Your task to perform on an android device: turn smart compose on in the gmail app Image 0: 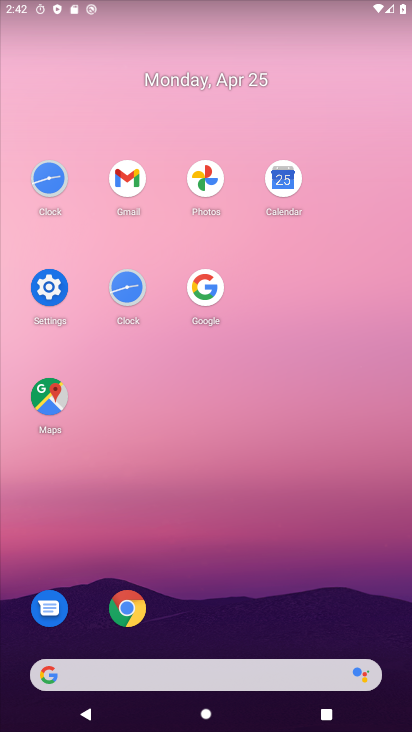
Step 0: click (131, 179)
Your task to perform on an android device: turn smart compose on in the gmail app Image 1: 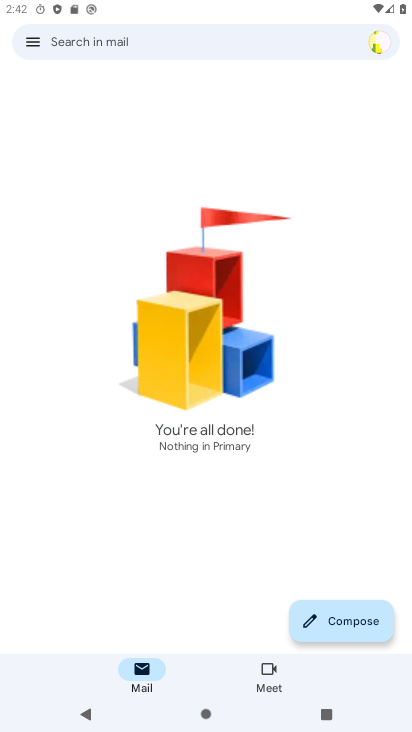
Step 1: click (26, 44)
Your task to perform on an android device: turn smart compose on in the gmail app Image 2: 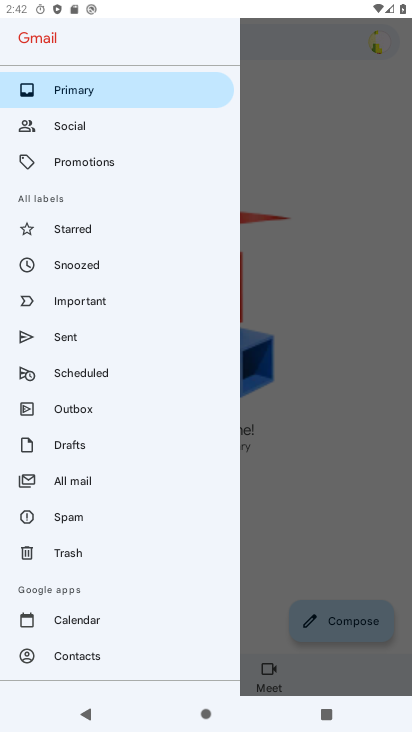
Step 2: drag from (120, 568) to (122, 158)
Your task to perform on an android device: turn smart compose on in the gmail app Image 3: 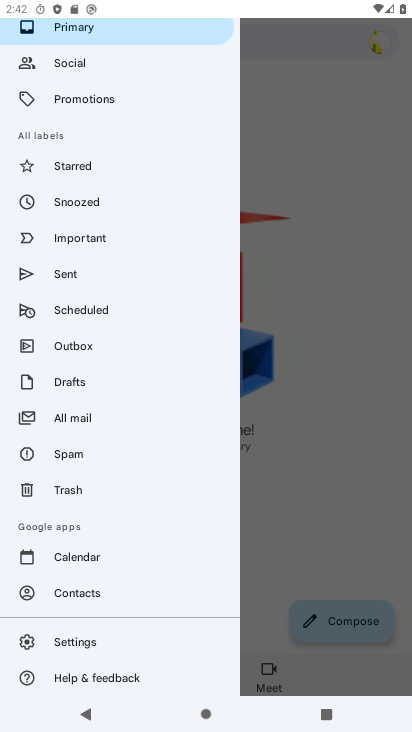
Step 3: click (78, 632)
Your task to perform on an android device: turn smart compose on in the gmail app Image 4: 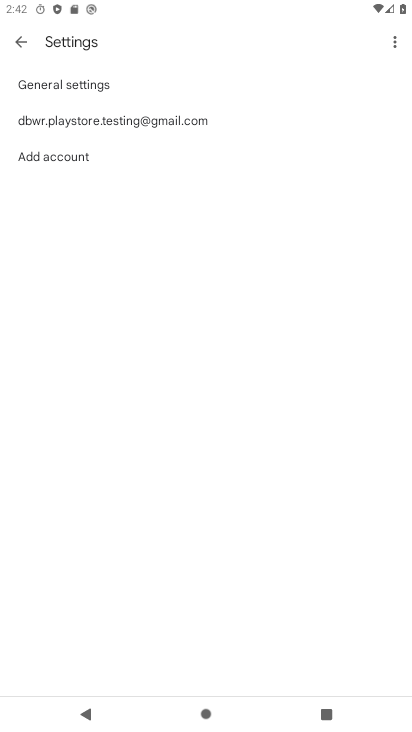
Step 4: click (157, 122)
Your task to perform on an android device: turn smart compose on in the gmail app Image 5: 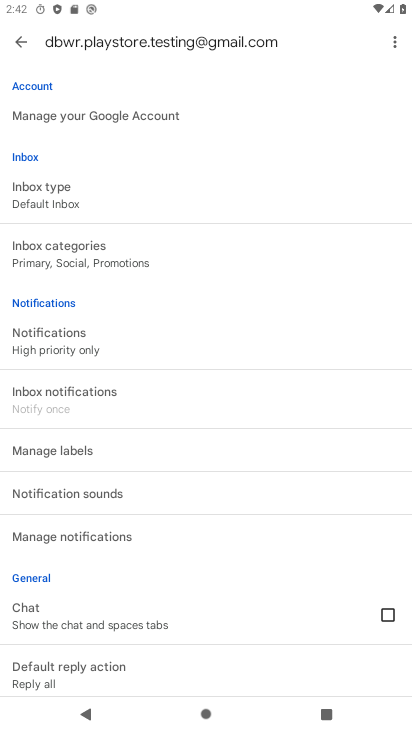
Step 5: task complete